Your task to perform on an android device: change the clock display to digital Image 0: 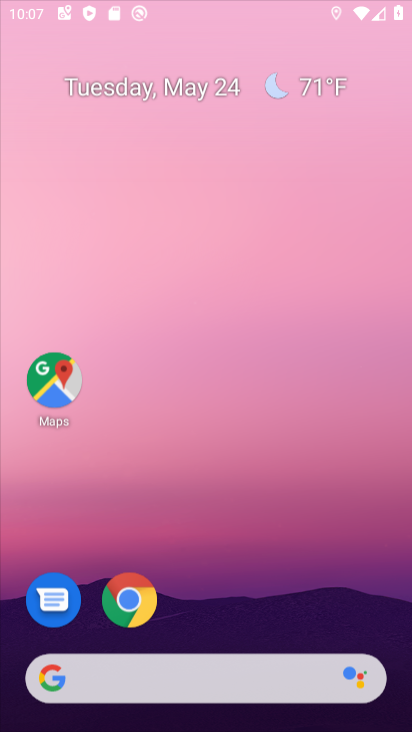
Step 0: drag from (104, 478) to (64, 91)
Your task to perform on an android device: change the clock display to digital Image 1: 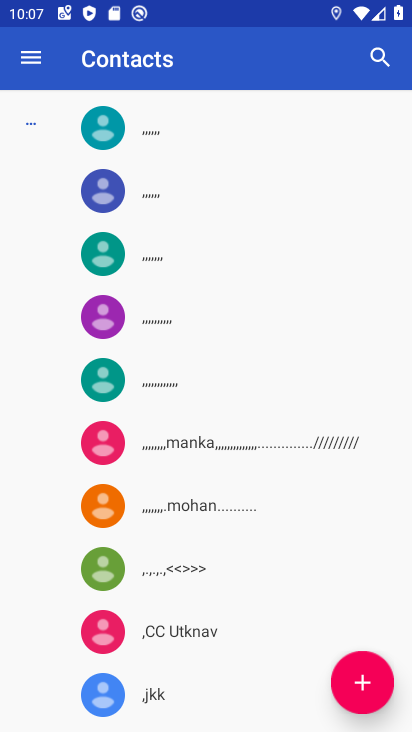
Step 1: press home button
Your task to perform on an android device: change the clock display to digital Image 2: 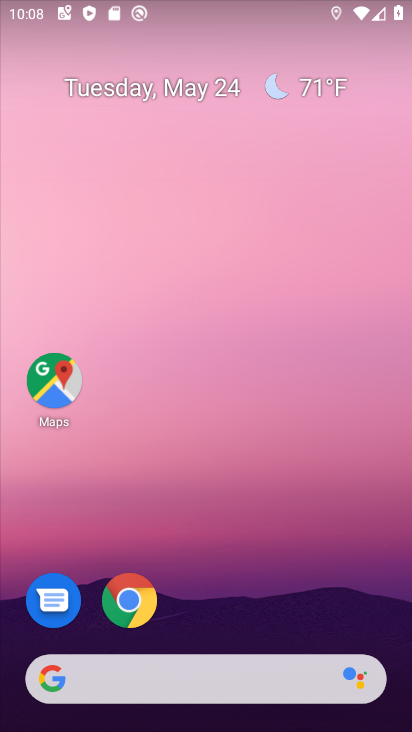
Step 2: drag from (296, 589) to (314, 111)
Your task to perform on an android device: change the clock display to digital Image 3: 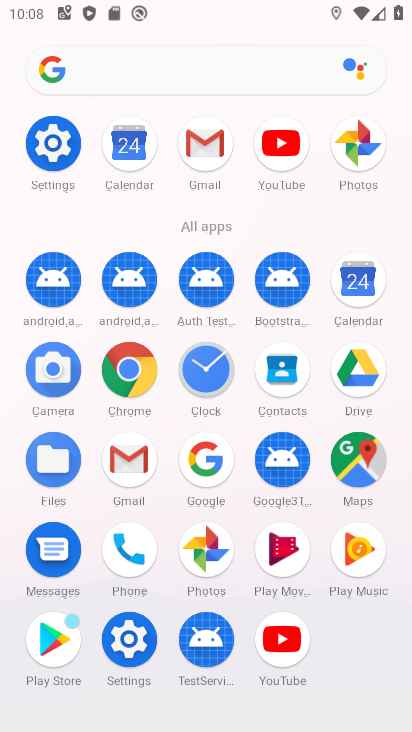
Step 3: click (198, 380)
Your task to perform on an android device: change the clock display to digital Image 4: 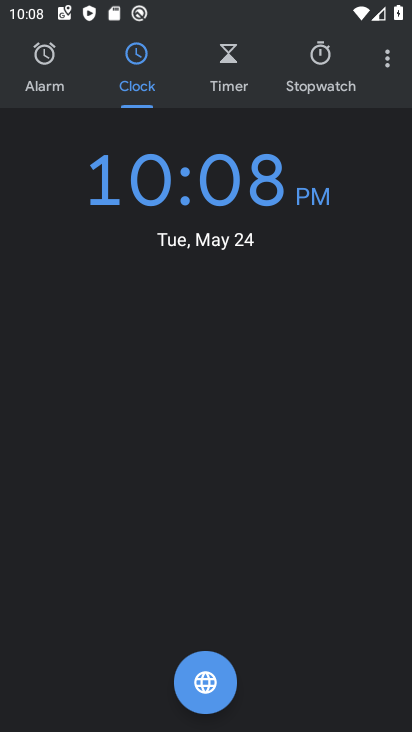
Step 4: click (386, 63)
Your task to perform on an android device: change the clock display to digital Image 5: 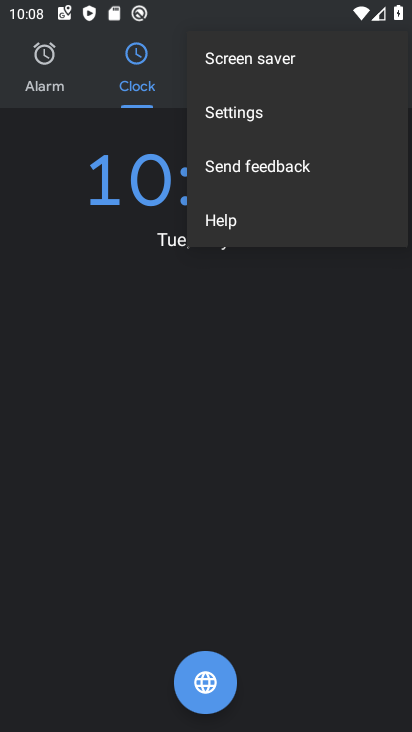
Step 5: click (263, 117)
Your task to perform on an android device: change the clock display to digital Image 6: 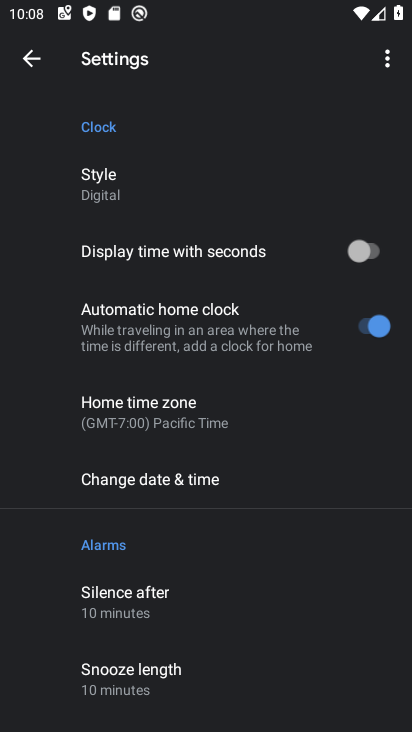
Step 6: task complete